Your task to perform on an android device: Open Yahoo.com Image 0: 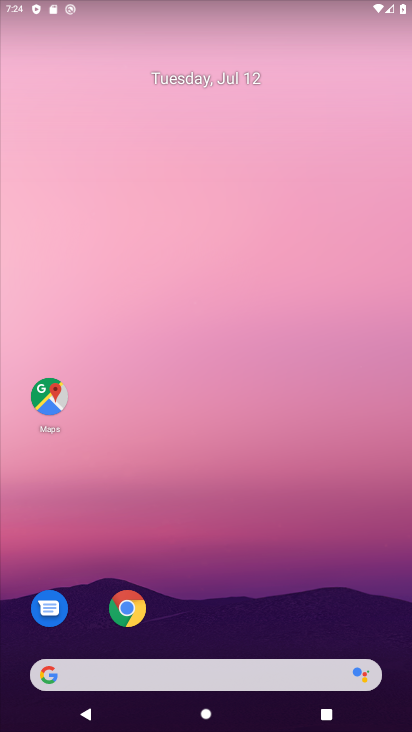
Step 0: click (119, 605)
Your task to perform on an android device: Open Yahoo.com Image 1: 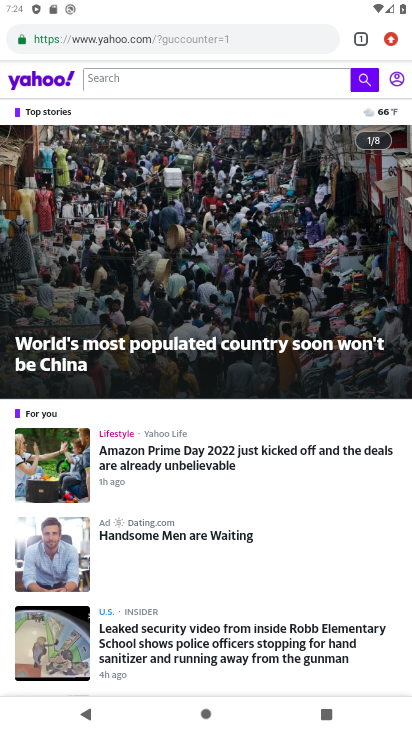
Step 1: task complete